Your task to perform on an android device: create a new album in the google photos Image 0: 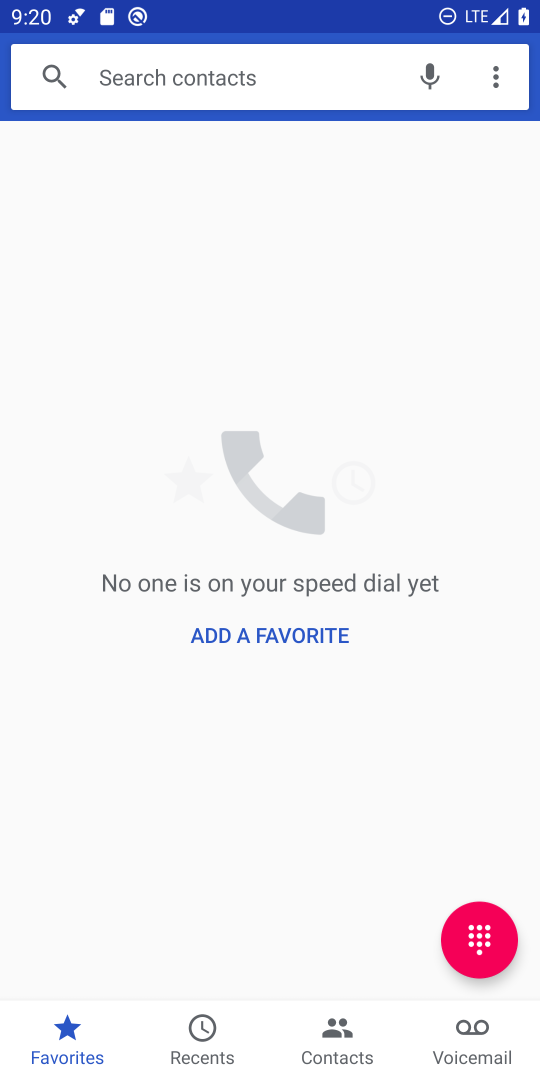
Step 0: press home button
Your task to perform on an android device: create a new album in the google photos Image 1: 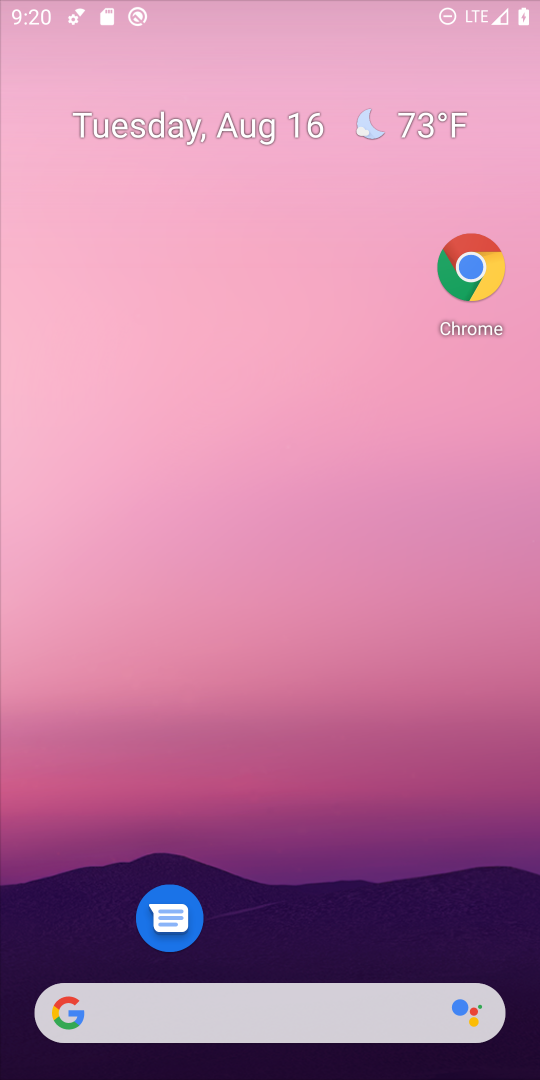
Step 1: click (506, 633)
Your task to perform on an android device: create a new album in the google photos Image 2: 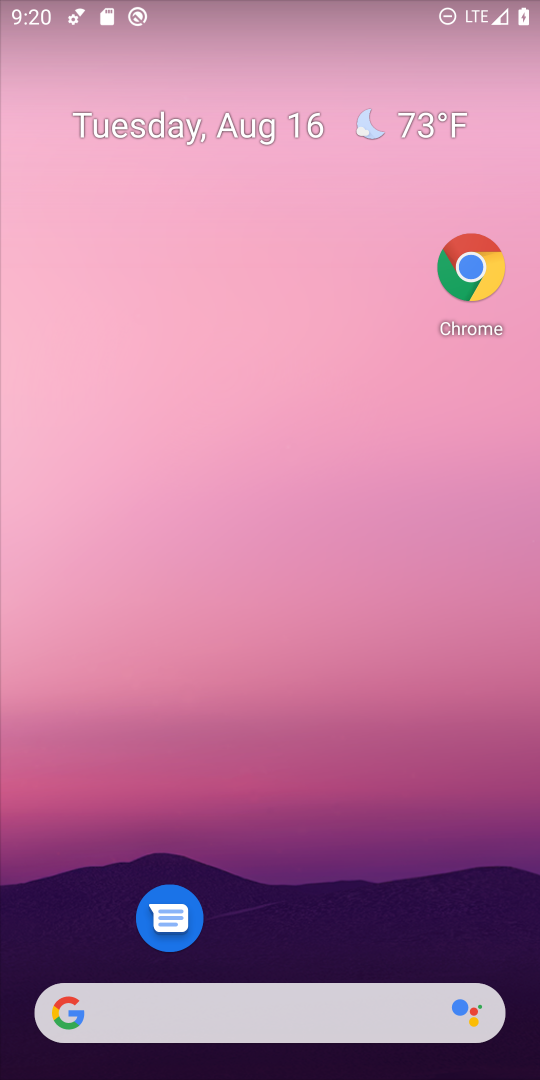
Step 2: drag from (313, 948) to (314, 237)
Your task to perform on an android device: create a new album in the google photos Image 3: 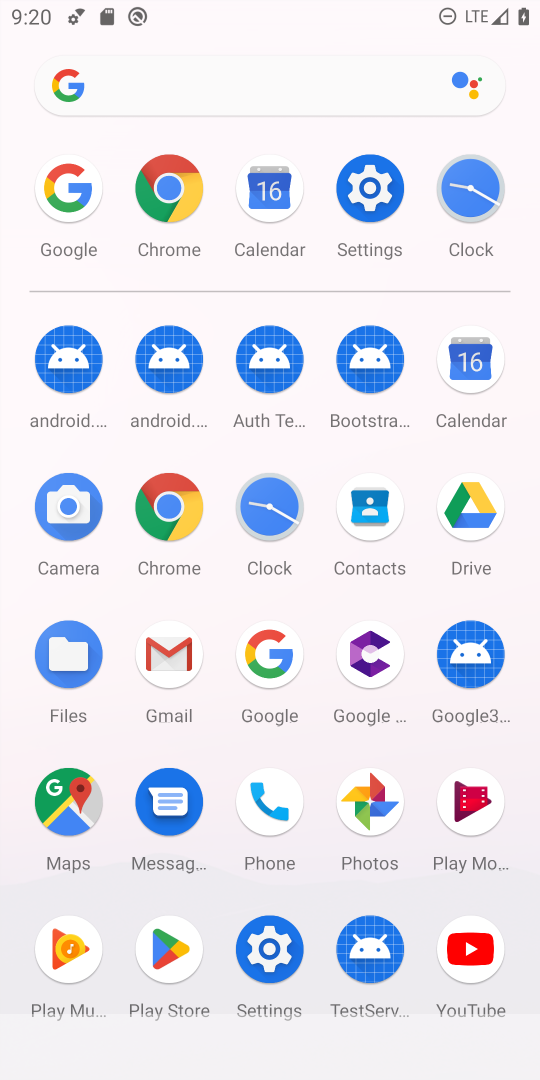
Step 3: click (371, 815)
Your task to perform on an android device: create a new album in the google photos Image 4: 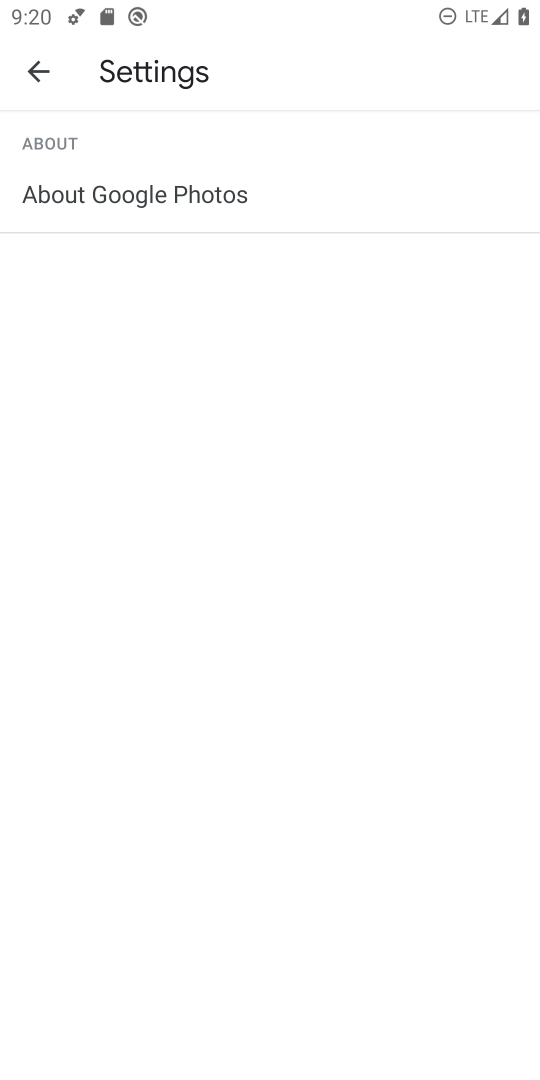
Step 4: click (36, 78)
Your task to perform on an android device: create a new album in the google photos Image 5: 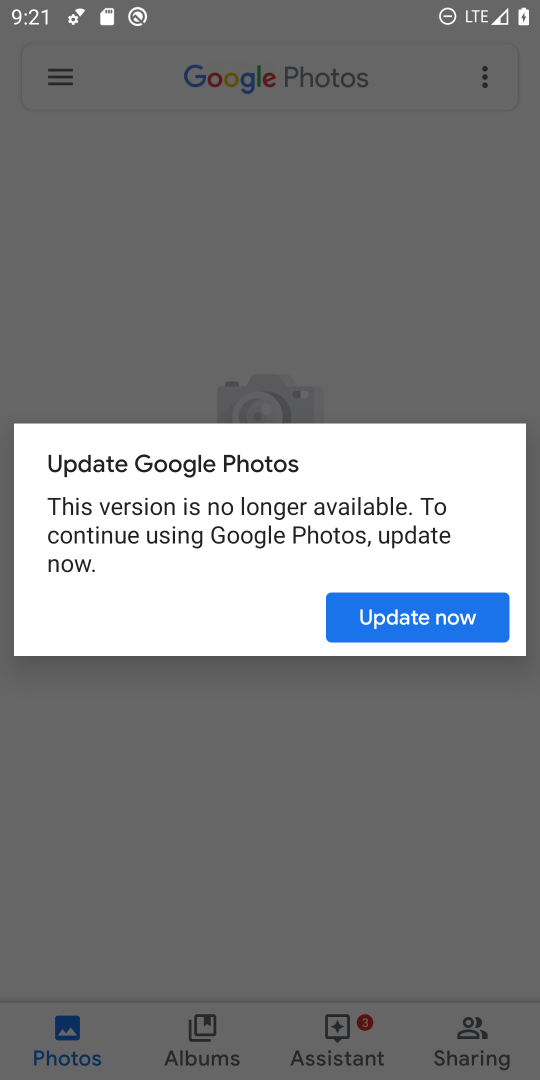
Step 5: task complete